Your task to perform on an android device: open app "Paramount+ | Peak Streaming" (install if not already installed) Image 0: 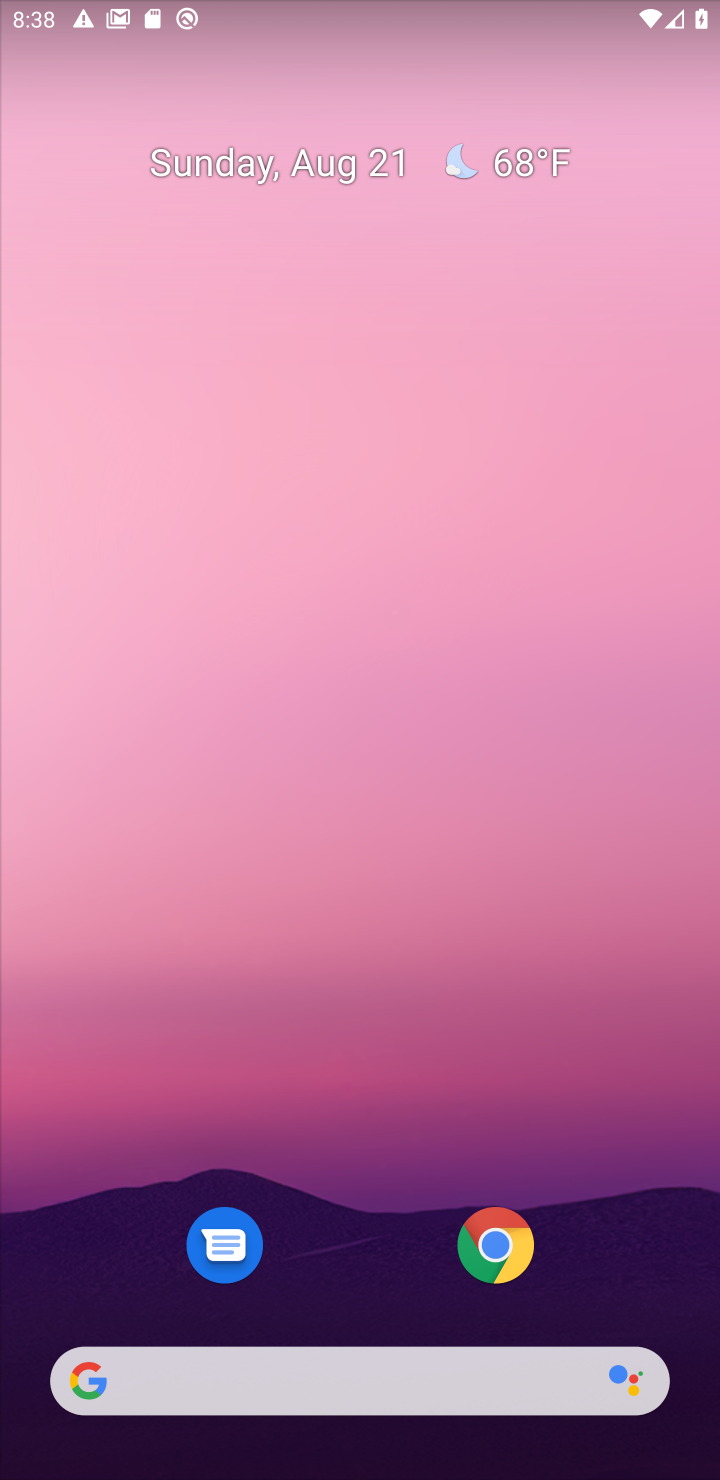
Step 0: drag from (340, 1215) to (345, 217)
Your task to perform on an android device: open app "Paramount+ | Peak Streaming" (install if not already installed) Image 1: 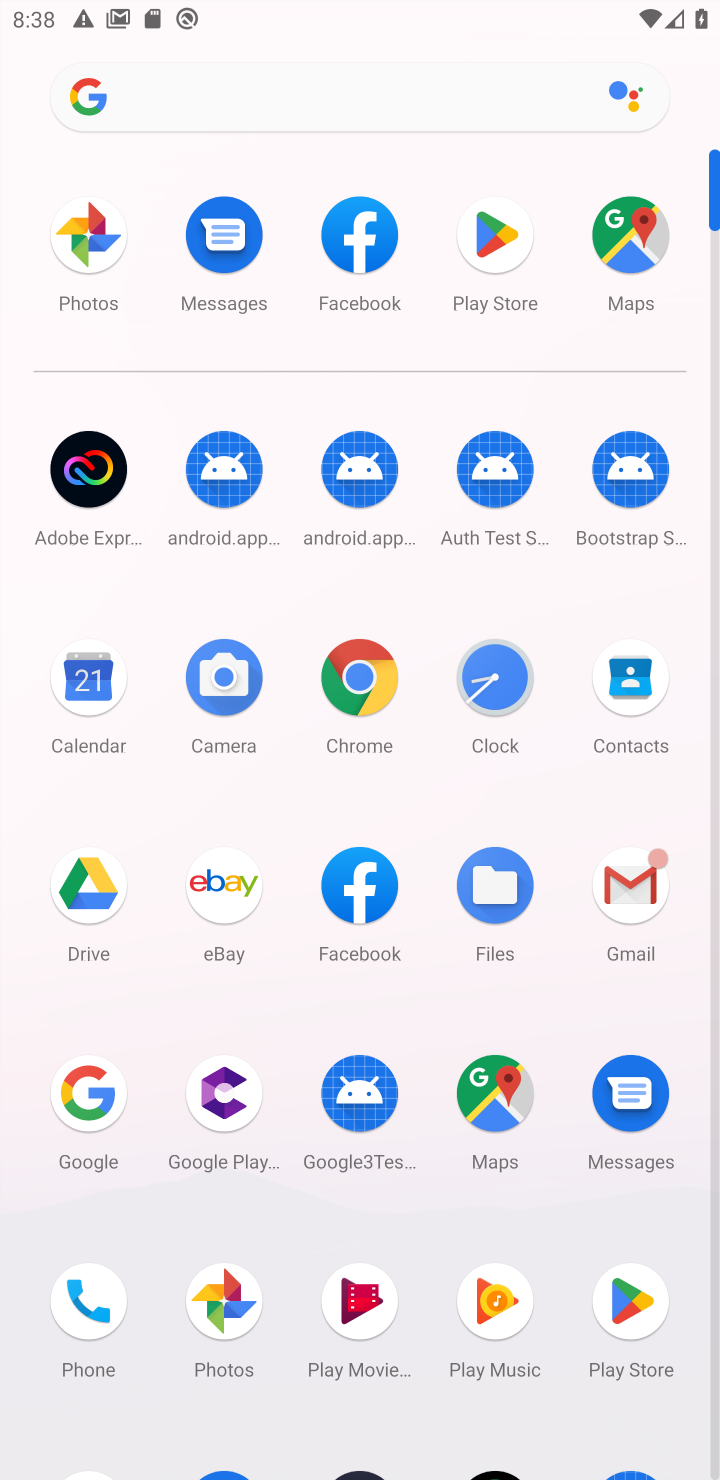
Step 1: click (629, 1290)
Your task to perform on an android device: open app "Paramount+ | Peak Streaming" (install if not already installed) Image 2: 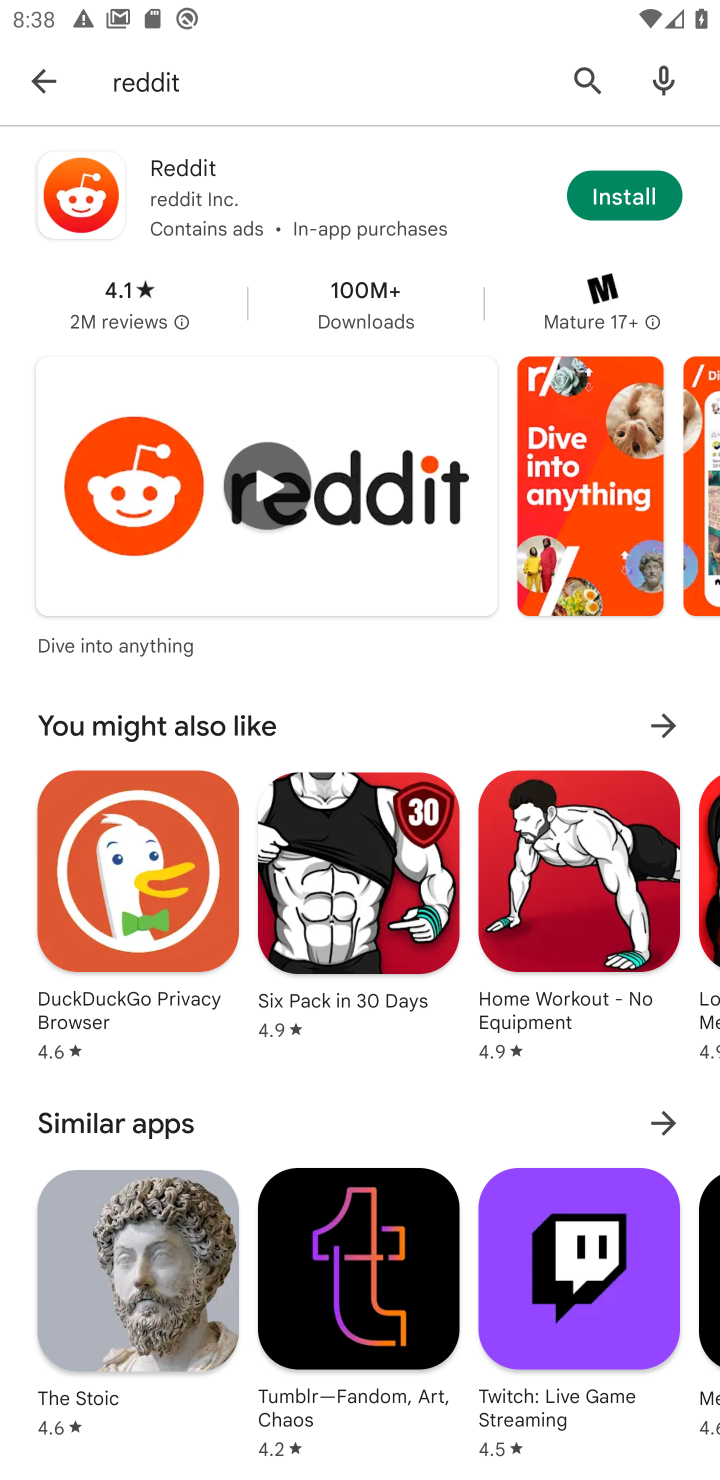
Step 2: click (53, 98)
Your task to perform on an android device: open app "Paramount+ | Peak Streaming" (install if not already installed) Image 3: 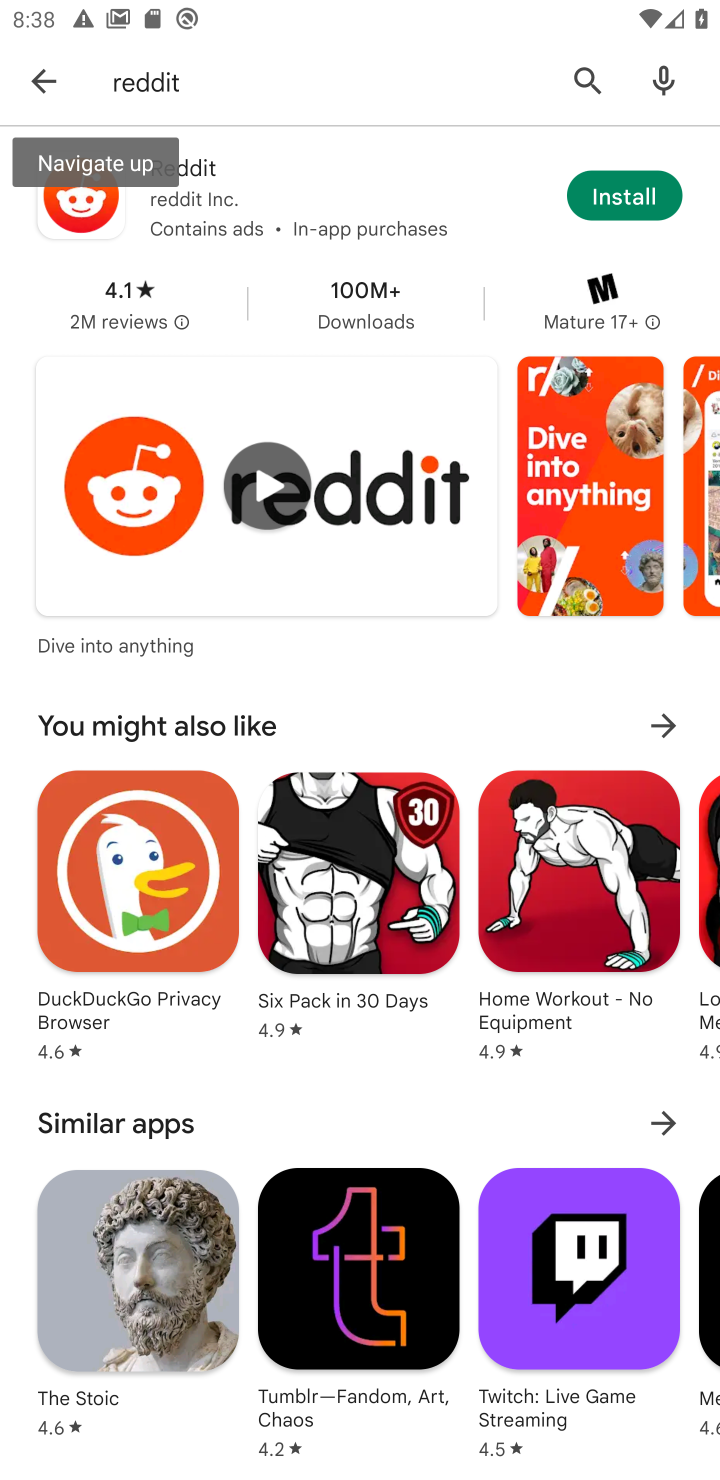
Step 3: click (43, 89)
Your task to perform on an android device: open app "Paramount+ | Peak Streaming" (install if not already installed) Image 4: 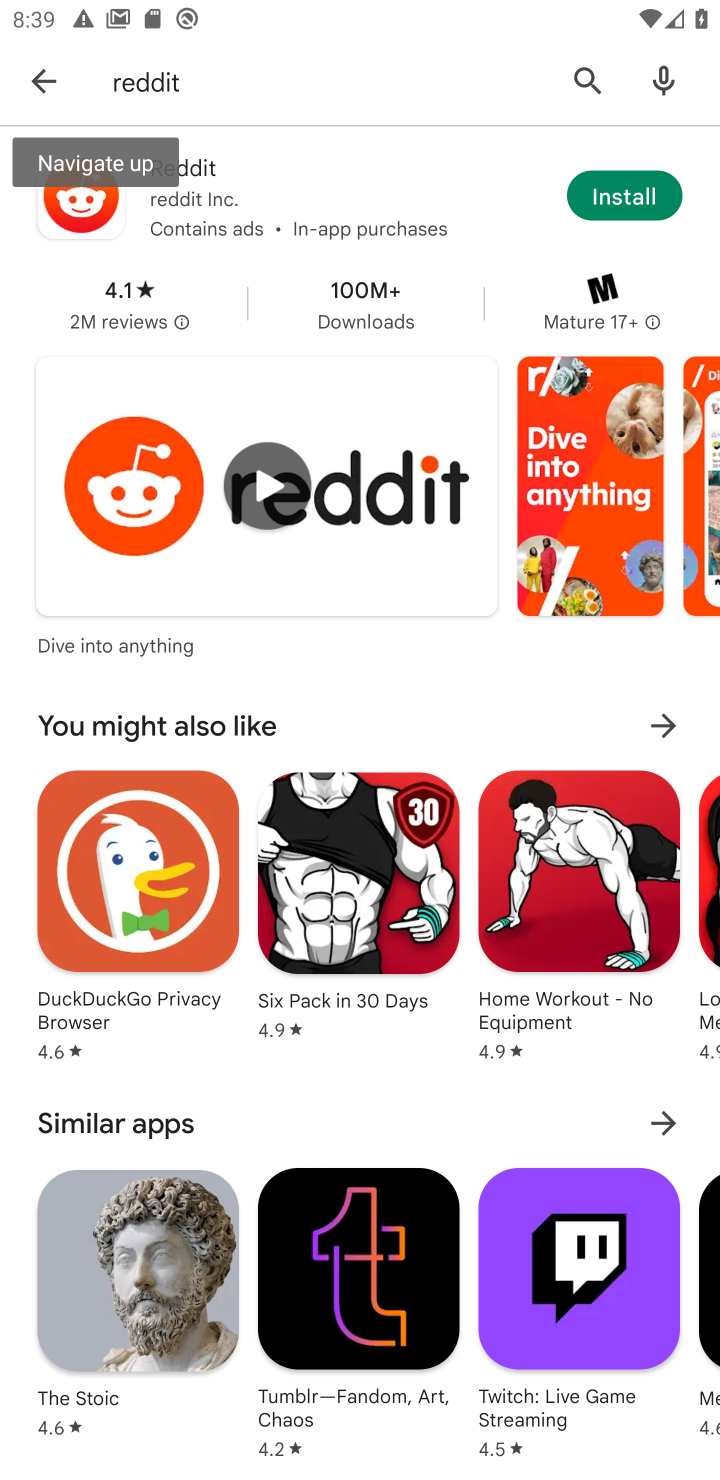
Step 4: click (42, 83)
Your task to perform on an android device: open app "Paramount+ | Peak Streaming" (install if not already installed) Image 5: 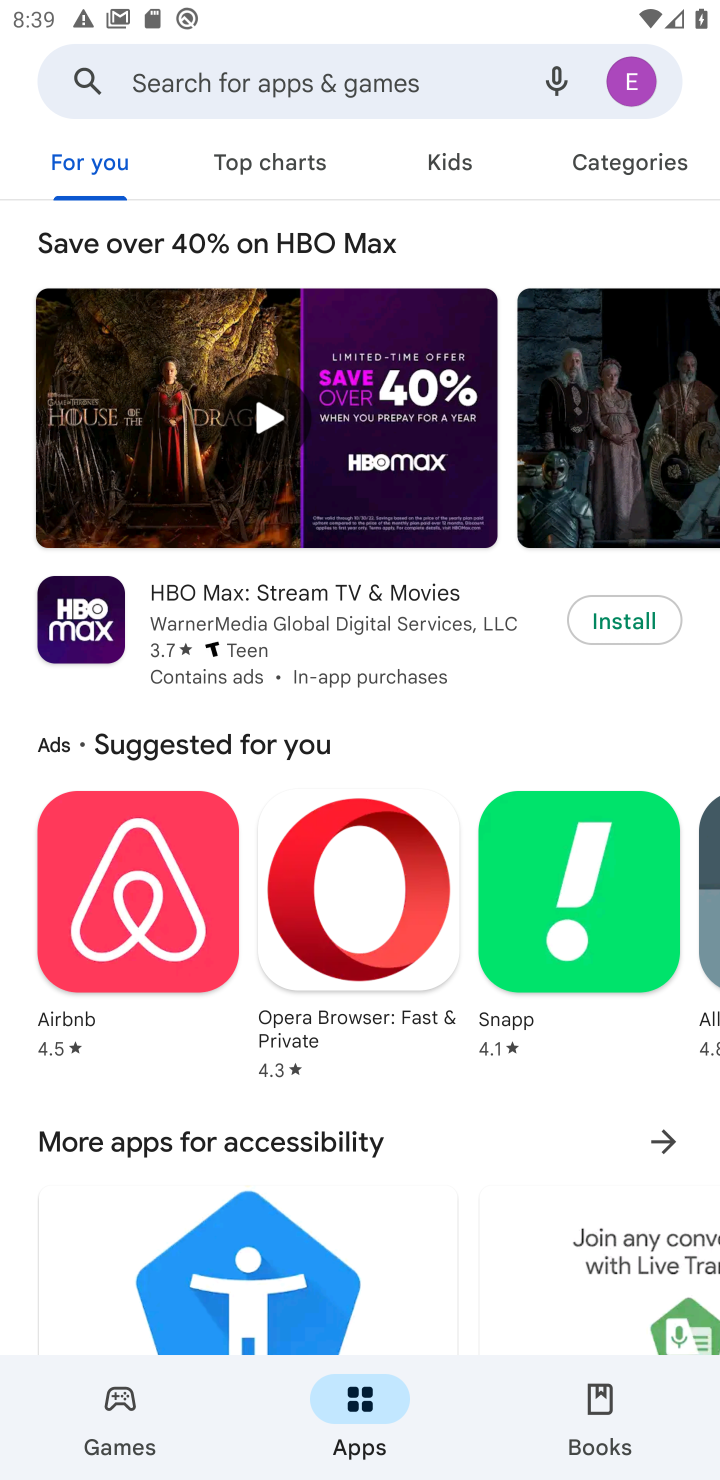
Step 5: click (257, 61)
Your task to perform on an android device: open app "Paramount+ | Peak Streaming" (install if not already installed) Image 6: 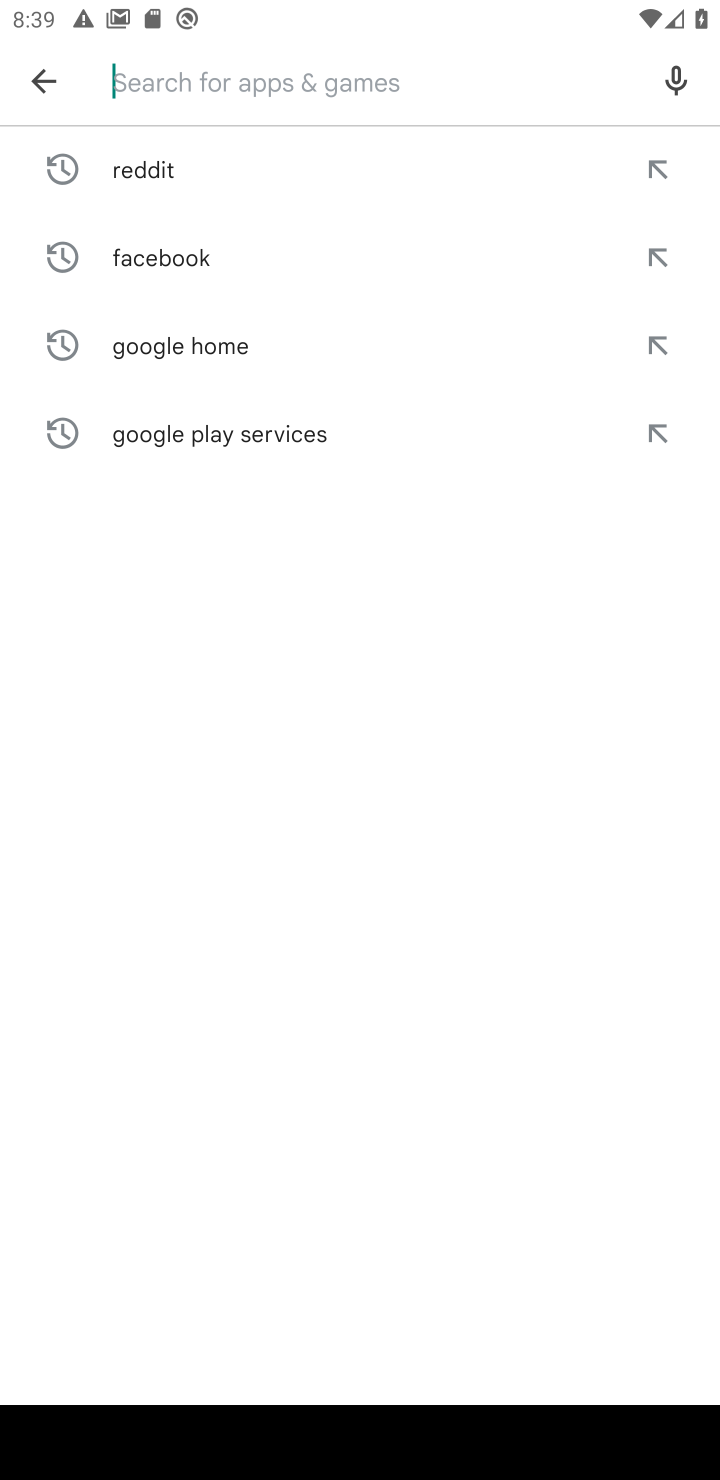
Step 6: drag from (336, 1459) to (409, 1478)
Your task to perform on an android device: open app "Paramount+ | Peak Streaming" (install if not already installed) Image 7: 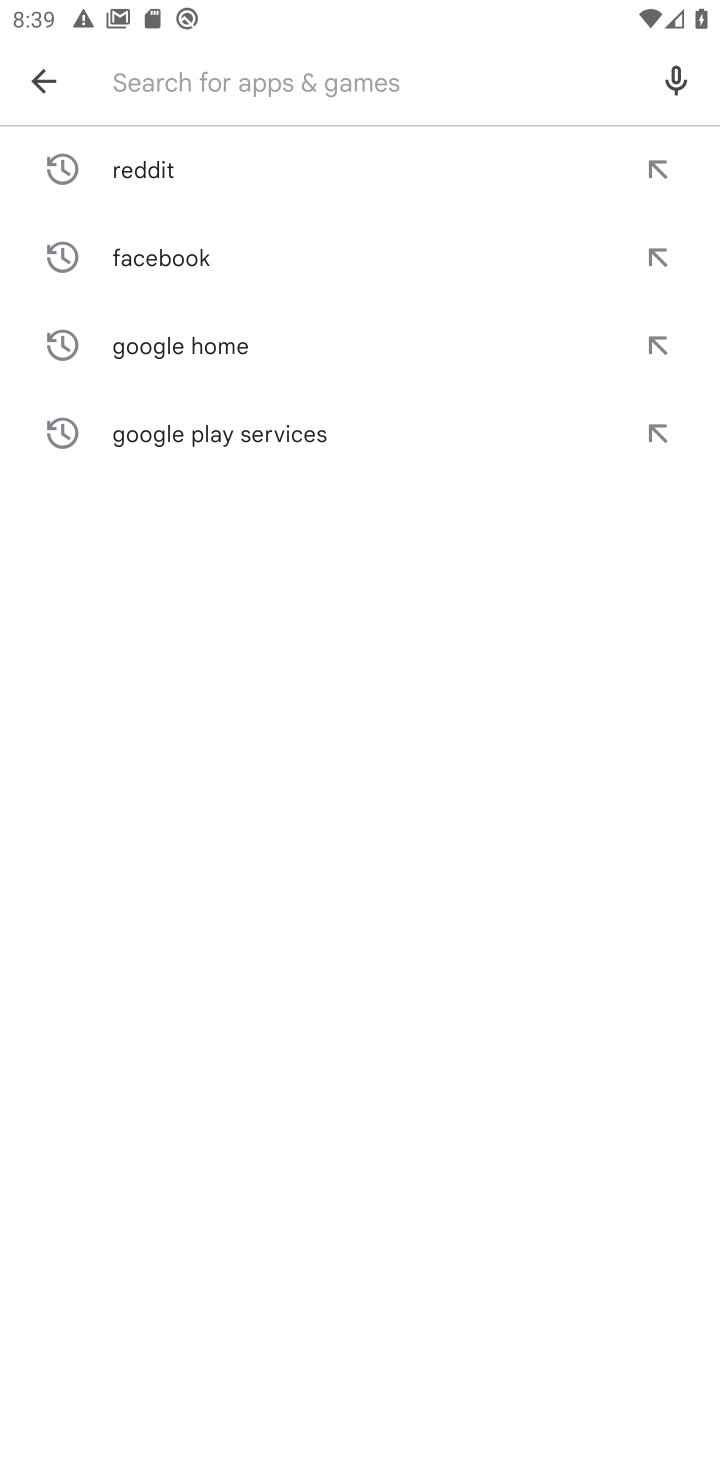
Step 7: type "Paramount+ | Peak Streaming"
Your task to perform on an android device: open app "Paramount+ | Peak Streaming" (install if not already installed) Image 8: 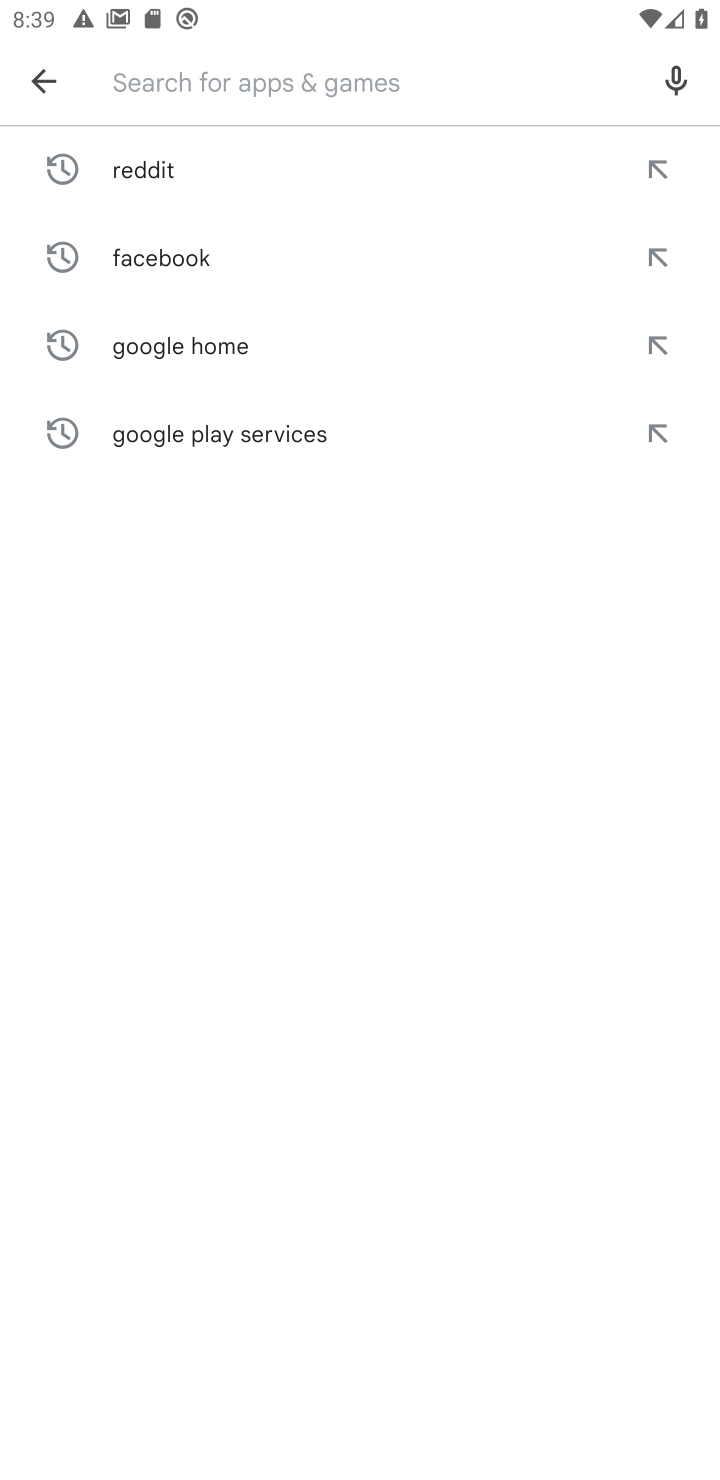
Step 8: click (197, 145)
Your task to perform on an android device: open app "Paramount+ | Peak Streaming" (install if not already installed) Image 9: 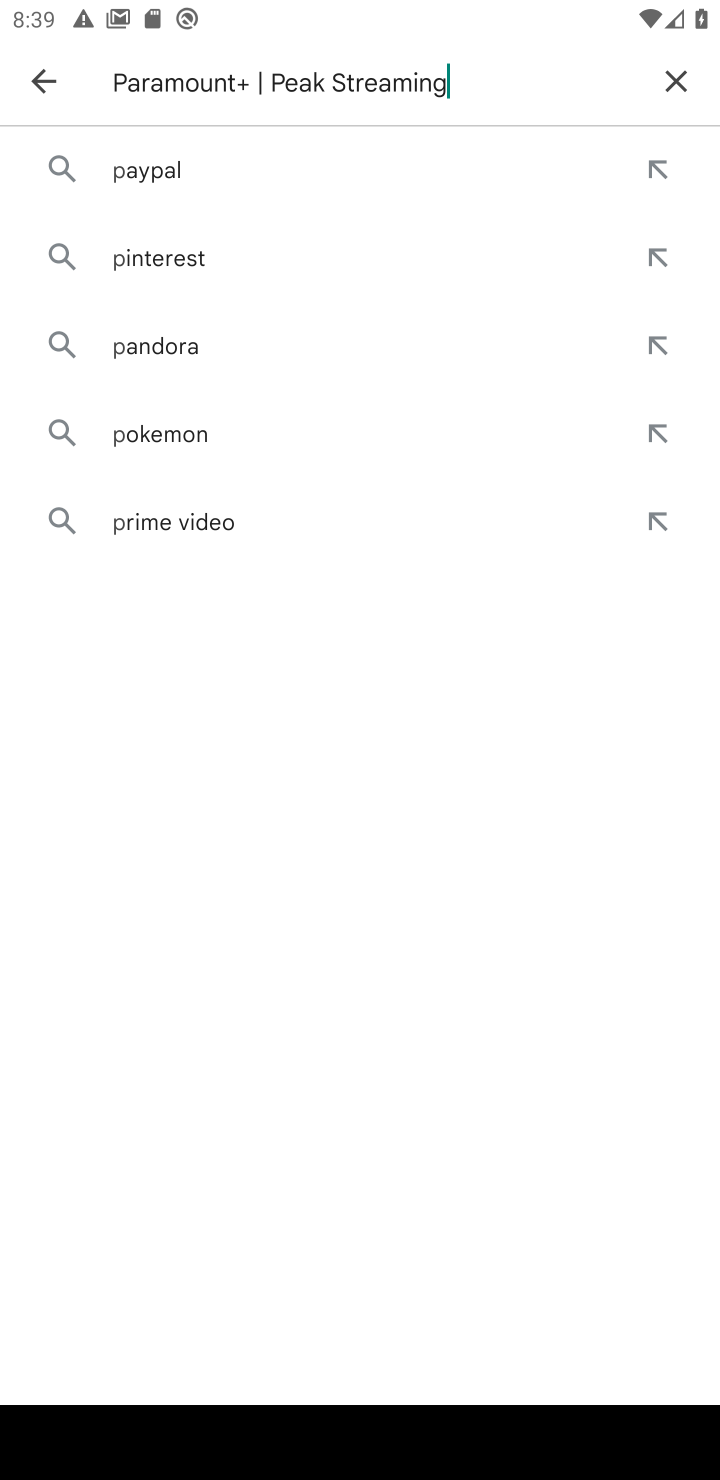
Step 9: type ""
Your task to perform on an android device: open app "Paramount+ | Peak Streaming" (install if not already installed) Image 10: 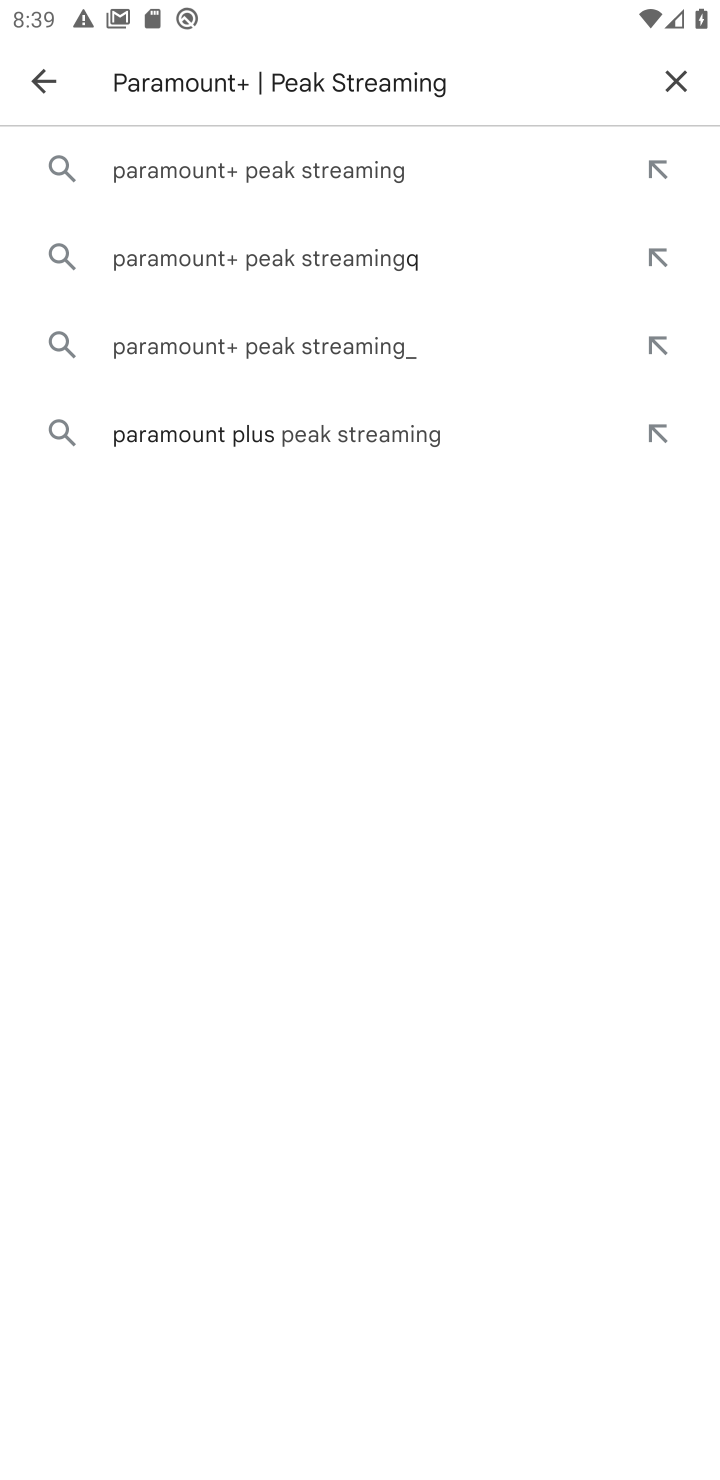
Step 10: click (210, 164)
Your task to perform on an android device: open app "Paramount+ | Peak Streaming" (install if not already installed) Image 11: 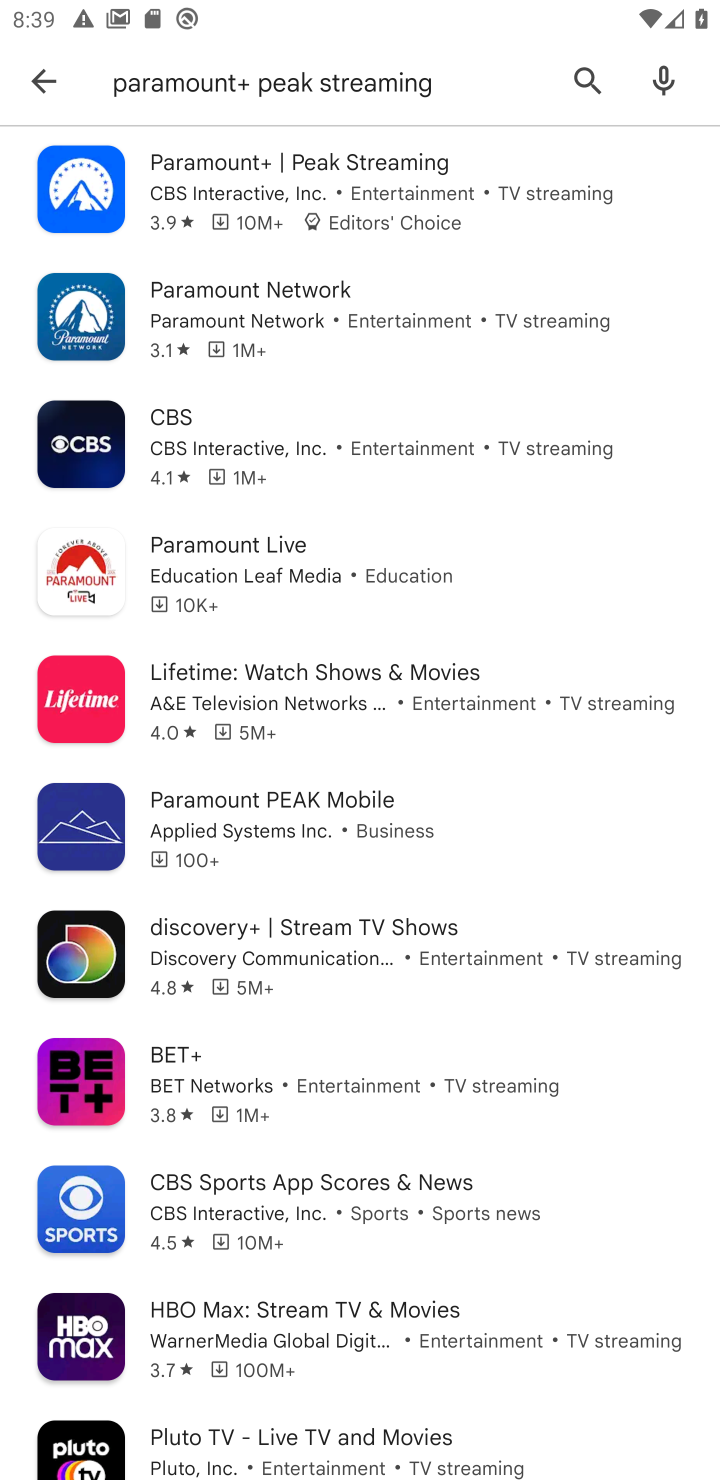
Step 11: click (246, 191)
Your task to perform on an android device: open app "Paramount+ | Peak Streaming" (install if not already installed) Image 12: 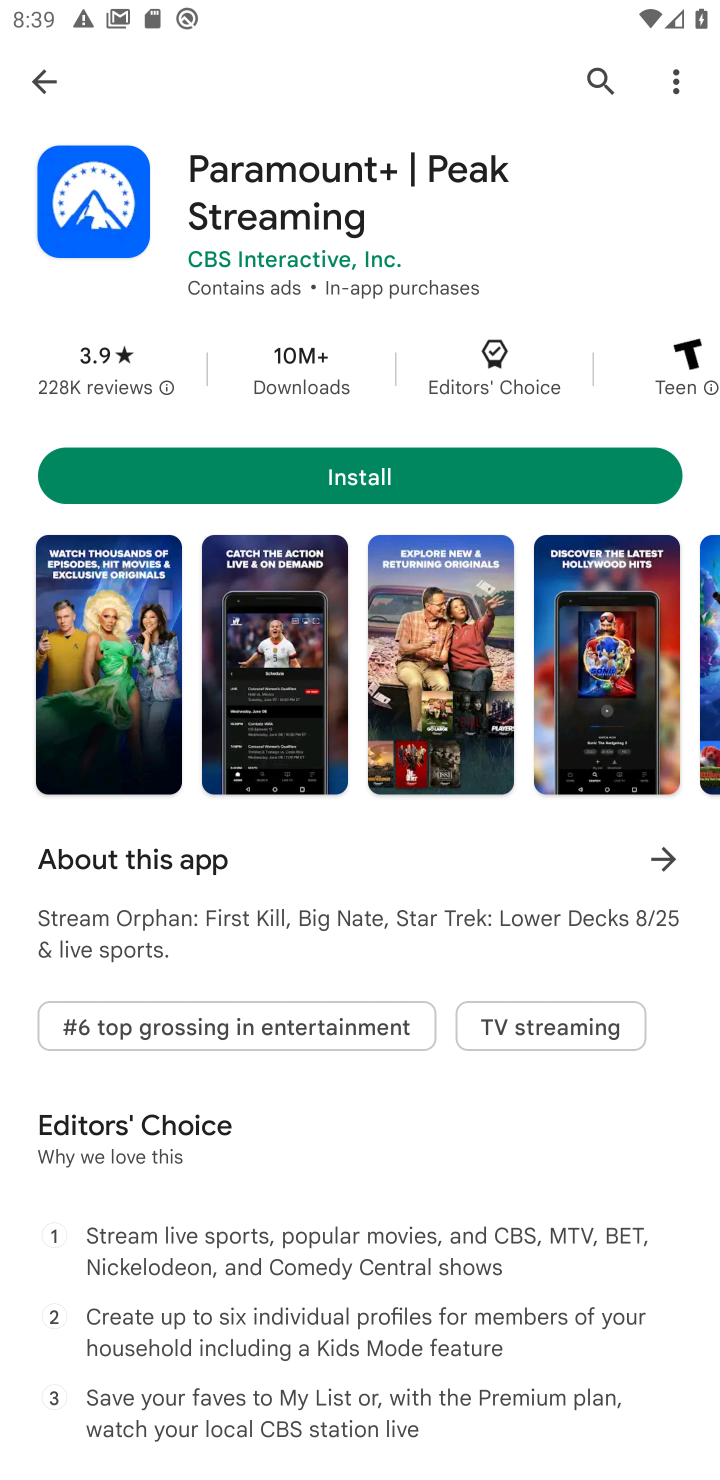
Step 12: click (311, 452)
Your task to perform on an android device: open app "Paramount+ | Peak Streaming" (install if not already installed) Image 13: 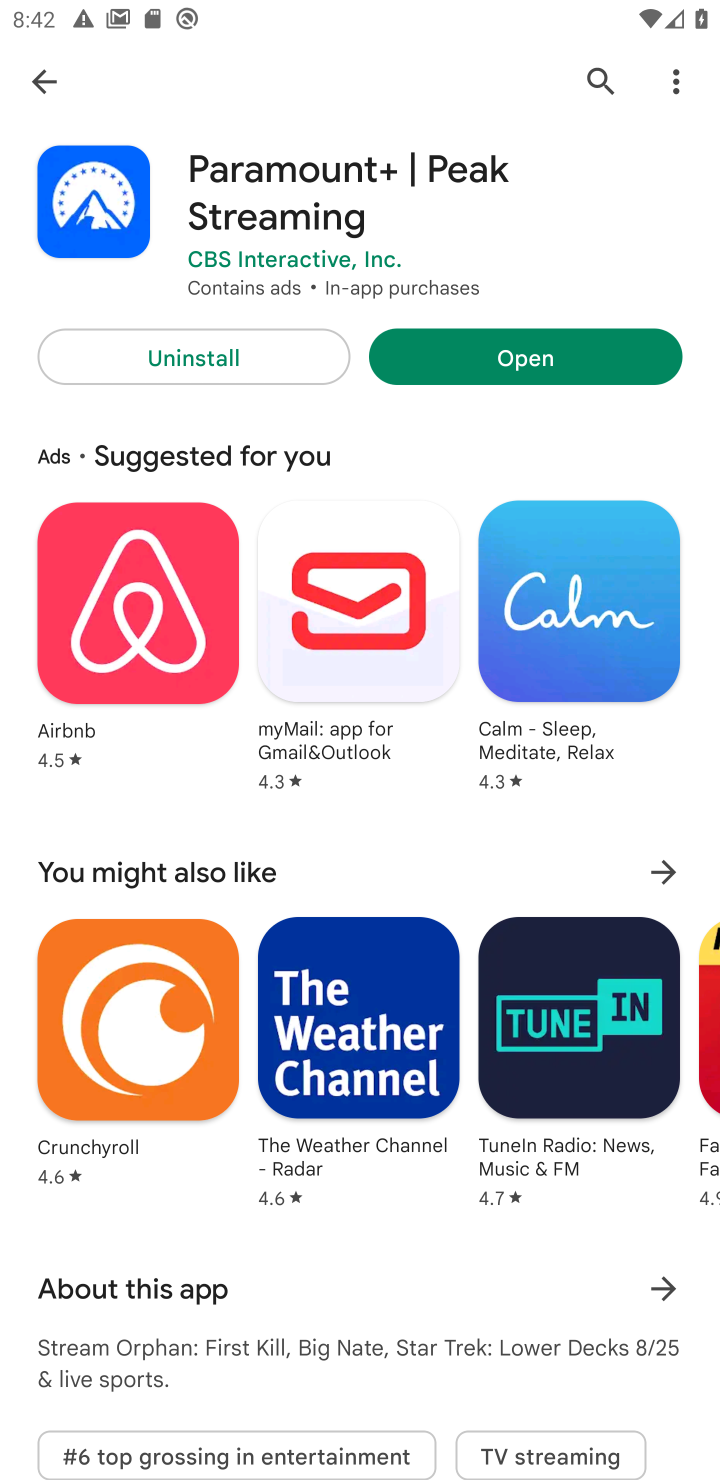
Step 13: click (483, 360)
Your task to perform on an android device: open app "Paramount+ | Peak Streaming" (install if not already installed) Image 14: 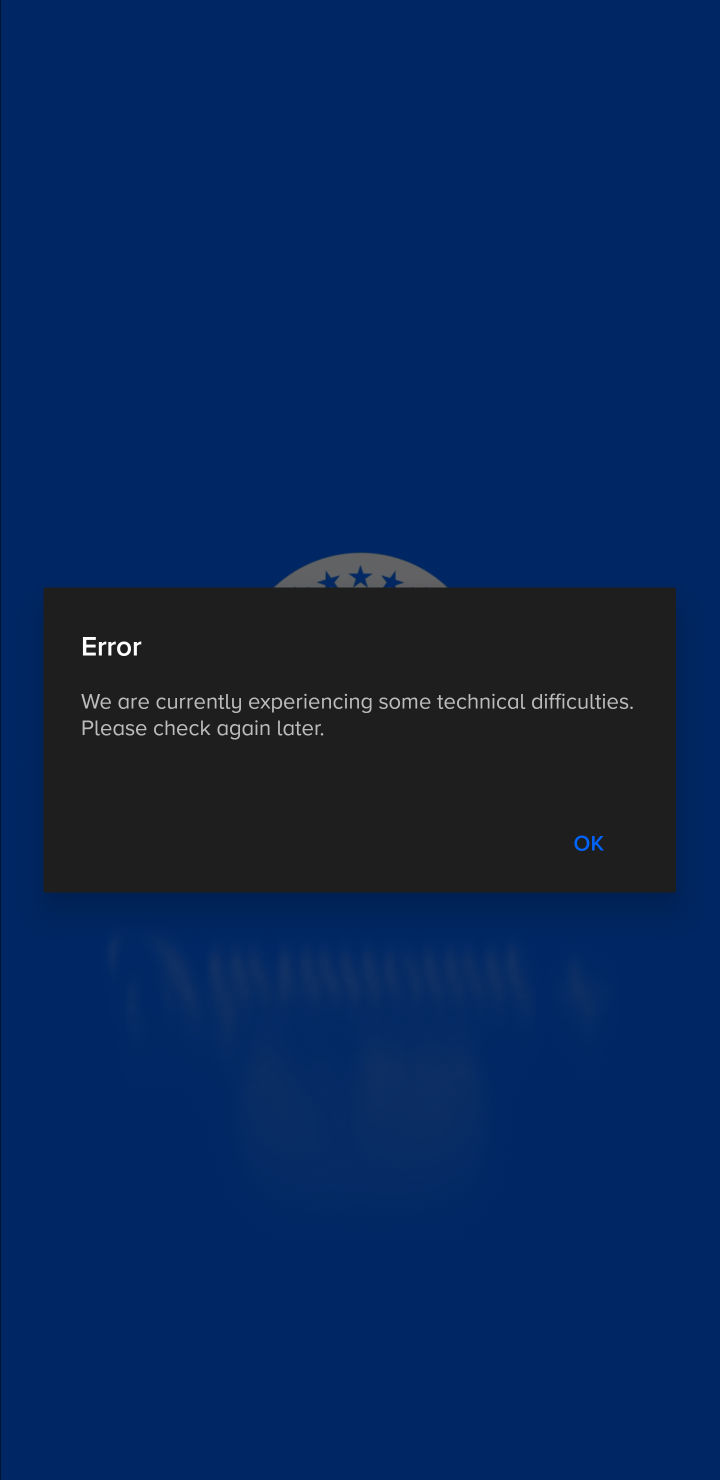
Step 14: click (593, 836)
Your task to perform on an android device: open app "Paramount+ | Peak Streaming" (install if not already installed) Image 15: 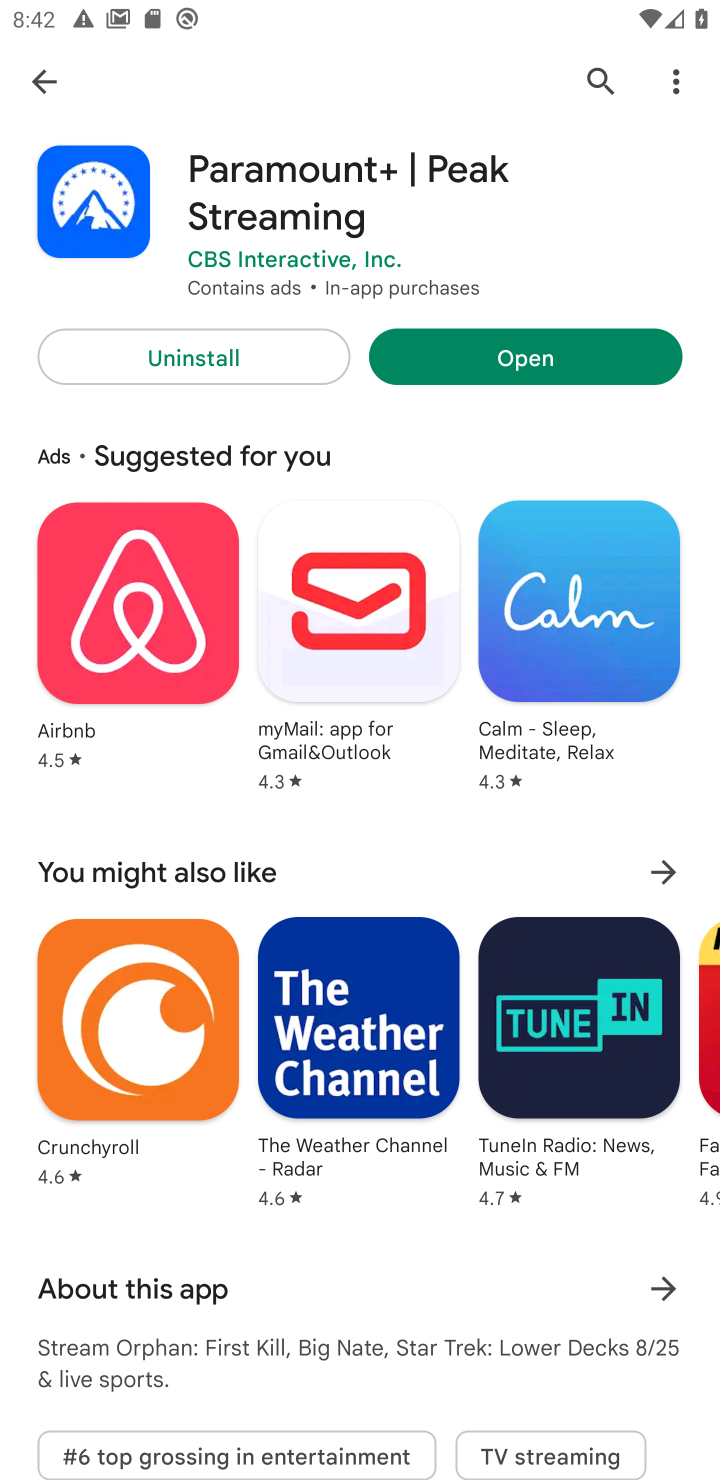
Step 15: task complete